Your task to perform on an android device: Go to wifi settings Image 0: 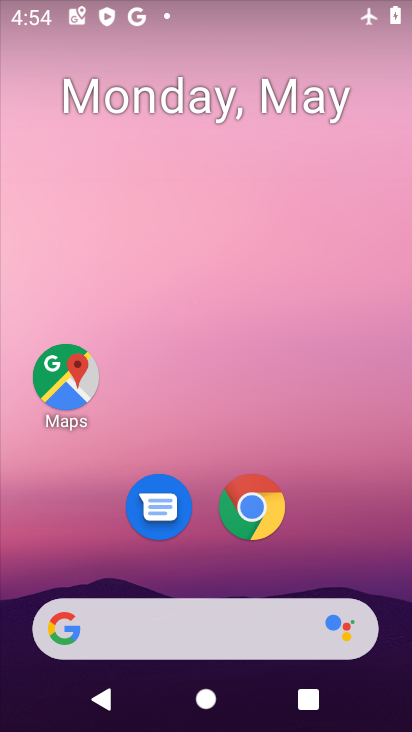
Step 0: drag from (327, 539) to (235, 0)
Your task to perform on an android device: Go to wifi settings Image 1: 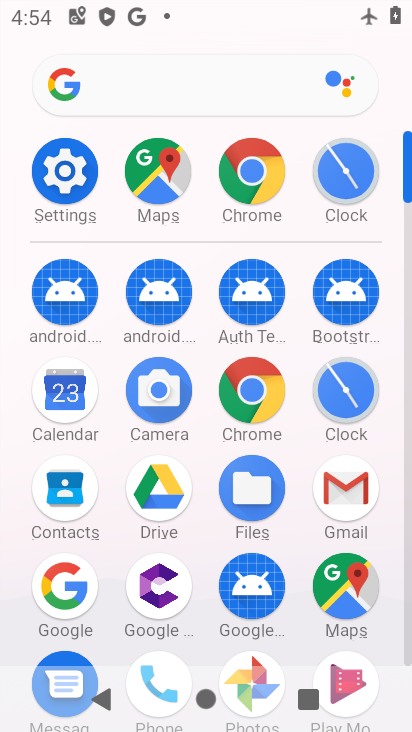
Step 1: click (77, 179)
Your task to perform on an android device: Go to wifi settings Image 2: 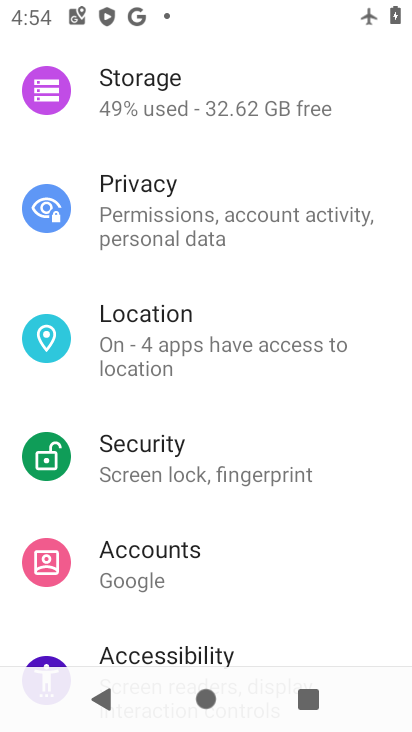
Step 2: drag from (227, 188) to (252, 600)
Your task to perform on an android device: Go to wifi settings Image 3: 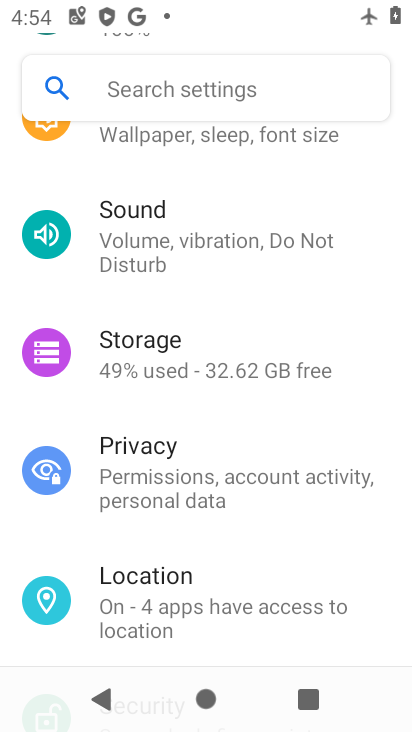
Step 3: drag from (197, 185) to (261, 661)
Your task to perform on an android device: Go to wifi settings Image 4: 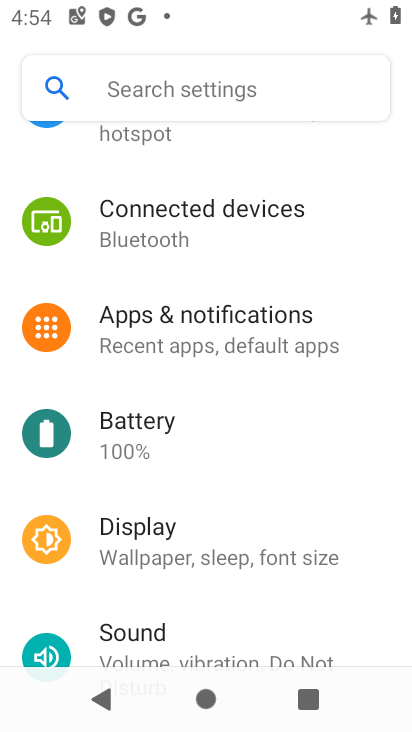
Step 4: drag from (231, 178) to (262, 683)
Your task to perform on an android device: Go to wifi settings Image 5: 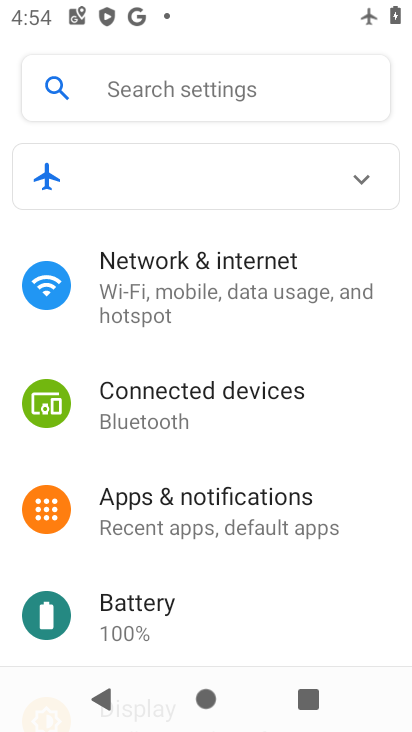
Step 5: click (215, 277)
Your task to perform on an android device: Go to wifi settings Image 6: 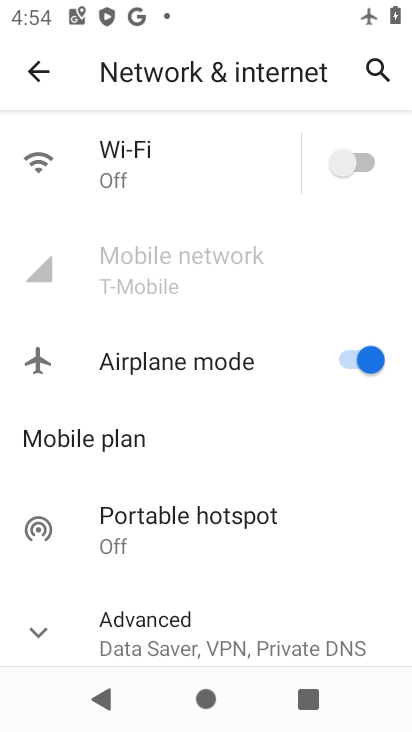
Step 6: click (161, 169)
Your task to perform on an android device: Go to wifi settings Image 7: 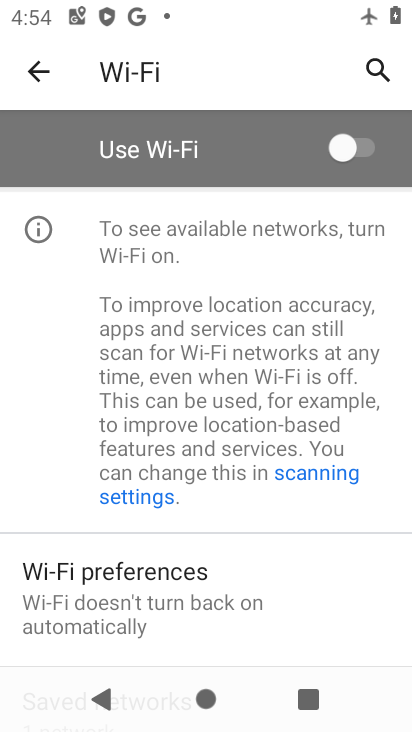
Step 7: task complete